Your task to perform on an android device: Open the map Image 0: 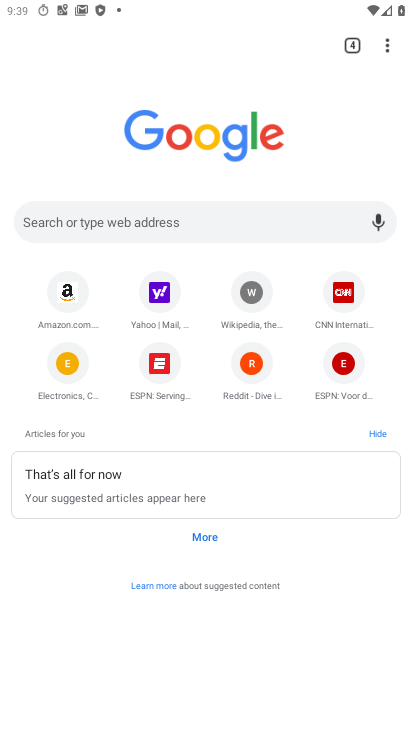
Step 0: press home button
Your task to perform on an android device: Open the map Image 1: 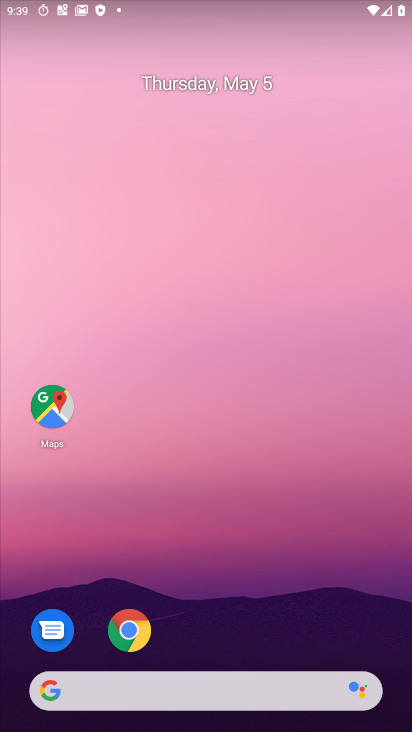
Step 1: click (48, 390)
Your task to perform on an android device: Open the map Image 2: 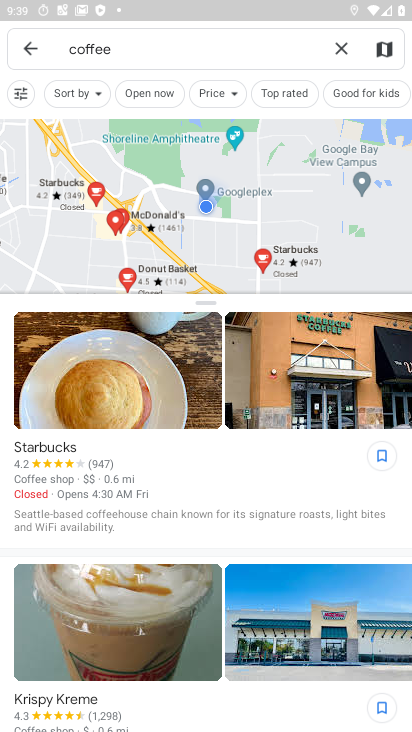
Step 2: task complete